Your task to perform on an android device: Go to sound settings Image 0: 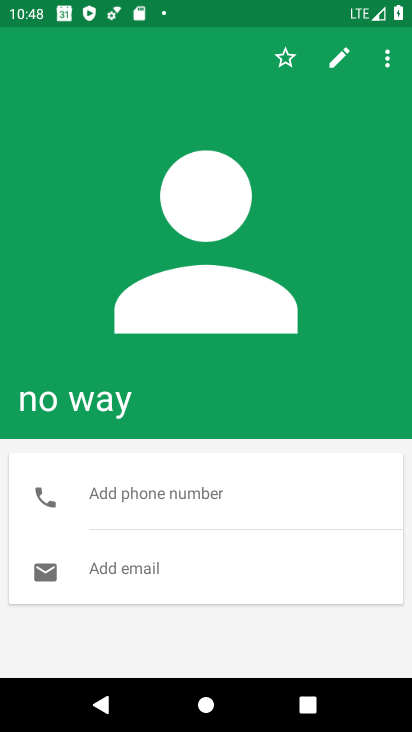
Step 0: press home button
Your task to perform on an android device: Go to sound settings Image 1: 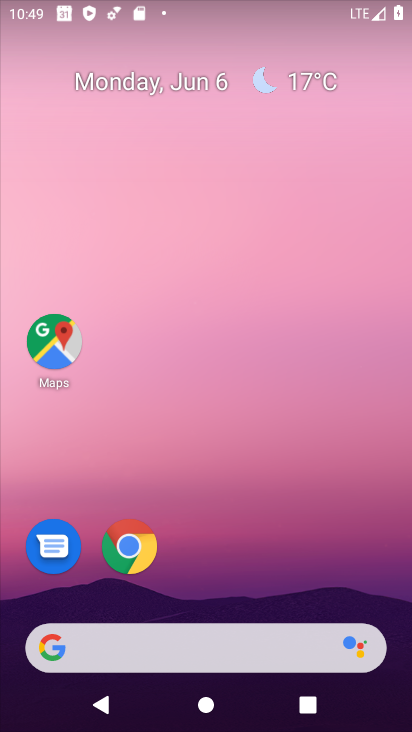
Step 1: drag from (284, 518) to (209, 62)
Your task to perform on an android device: Go to sound settings Image 2: 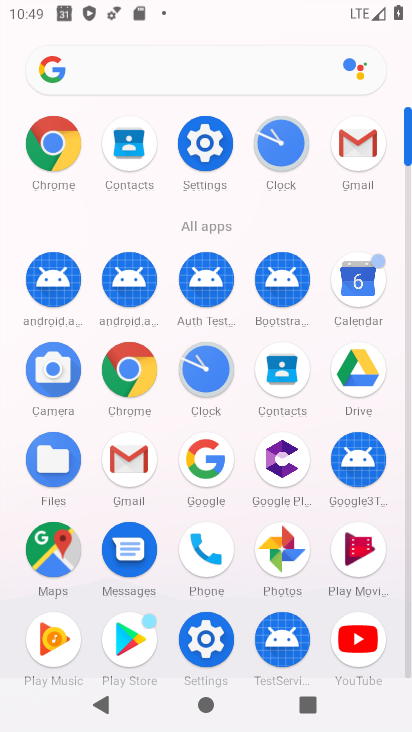
Step 2: click (204, 146)
Your task to perform on an android device: Go to sound settings Image 3: 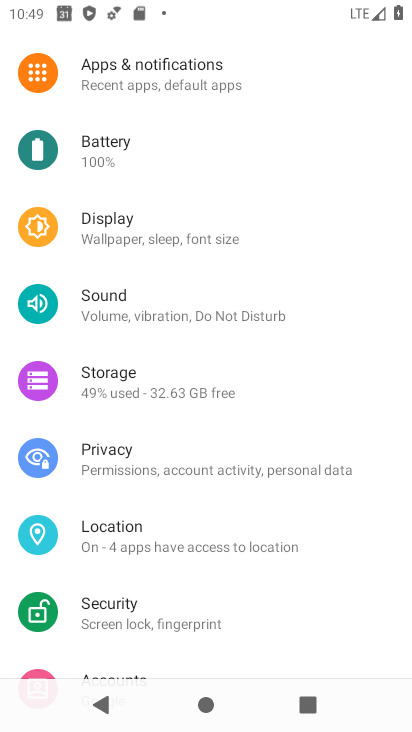
Step 3: click (147, 317)
Your task to perform on an android device: Go to sound settings Image 4: 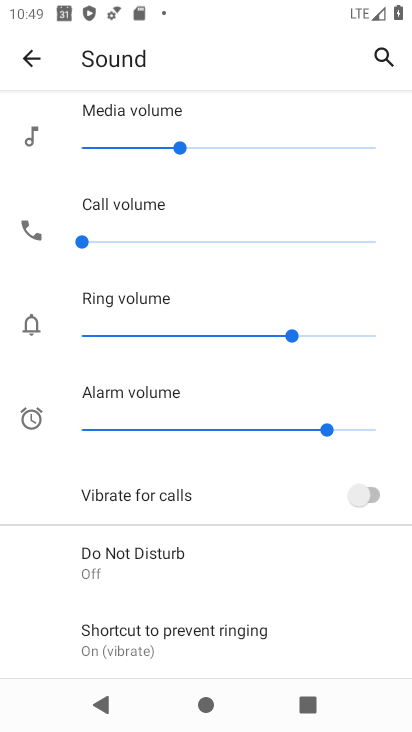
Step 4: task complete